Your task to perform on an android device: open sync settings in chrome Image 0: 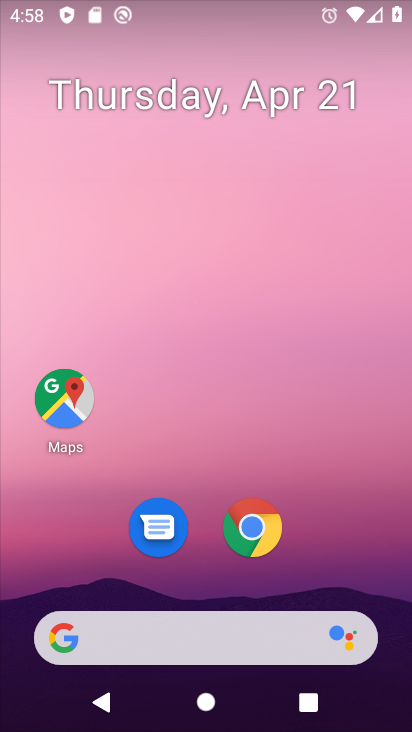
Step 0: click (255, 526)
Your task to perform on an android device: open sync settings in chrome Image 1: 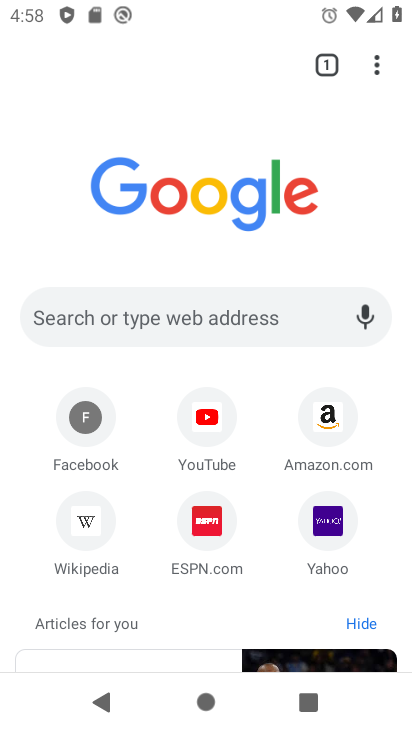
Step 1: click (375, 56)
Your task to perform on an android device: open sync settings in chrome Image 2: 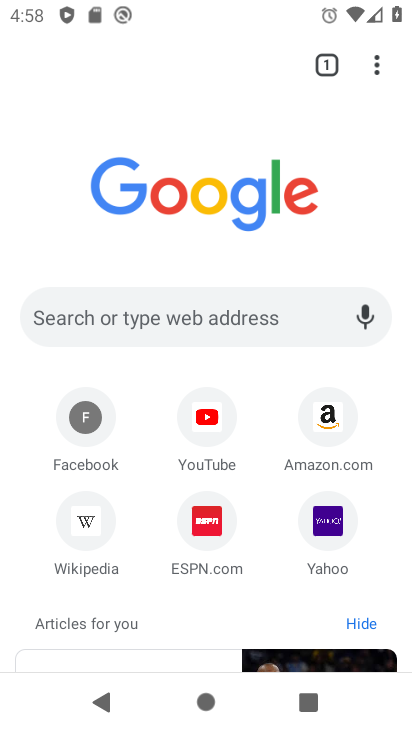
Step 2: click (375, 57)
Your task to perform on an android device: open sync settings in chrome Image 3: 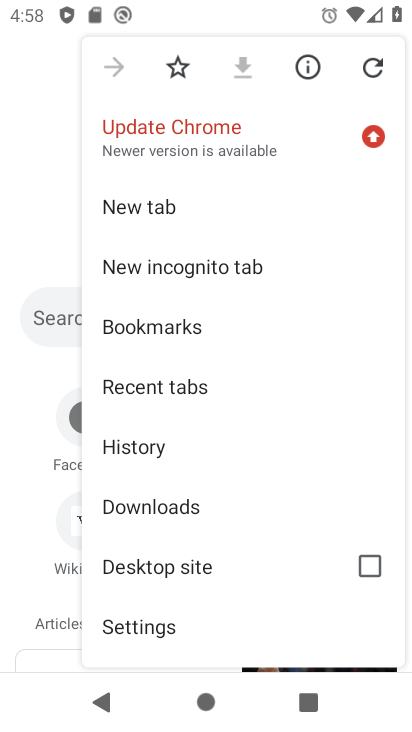
Step 3: click (148, 626)
Your task to perform on an android device: open sync settings in chrome Image 4: 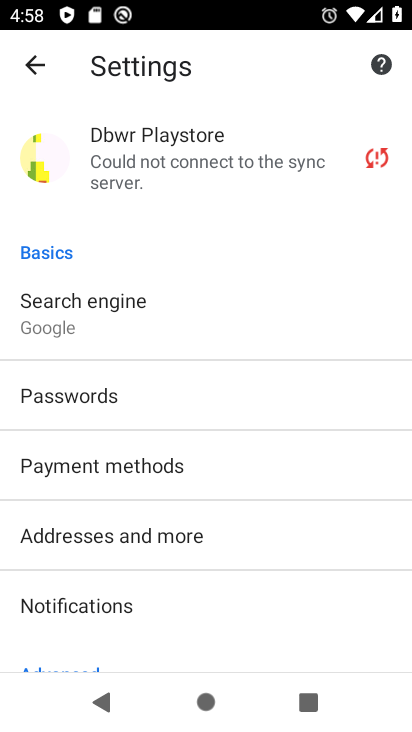
Step 4: drag from (249, 634) to (259, 362)
Your task to perform on an android device: open sync settings in chrome Image 5: 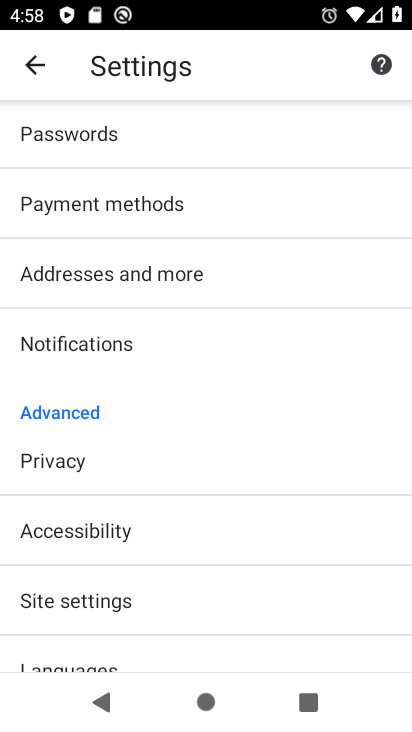
Step 5: drag from (305, 529) to (308, 271)
Your task to perform on an android device: open sync settings in chrome Image 6: 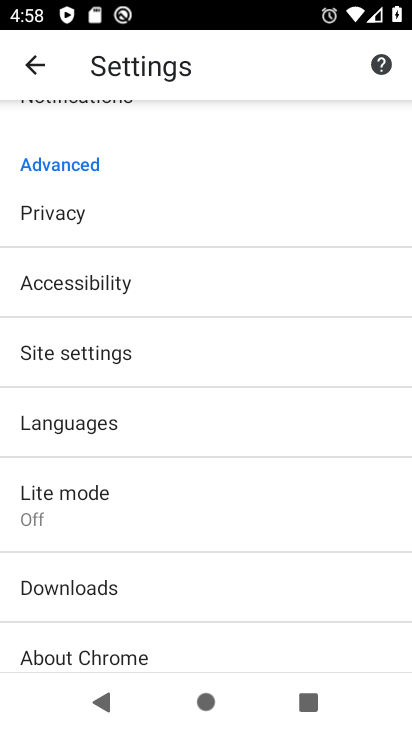
Step 6: click (71, 359)
Your task to perform on an android device: open sync settings in chrome Image 7: 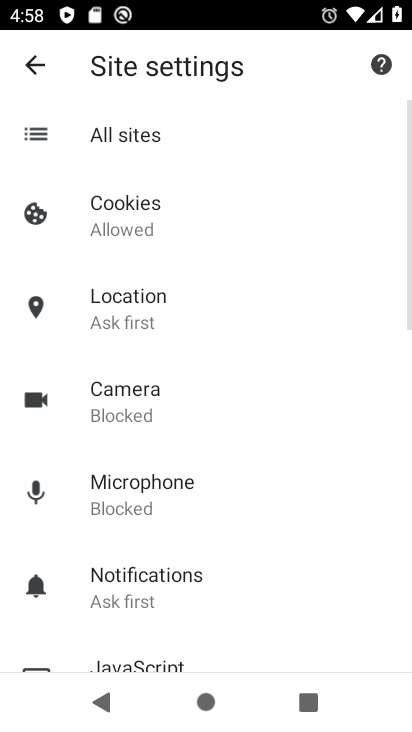
Step 7: drag from (289, 444) to (288, 225)
Your task to perform on an android device: open sync settings in chrome Image 8: 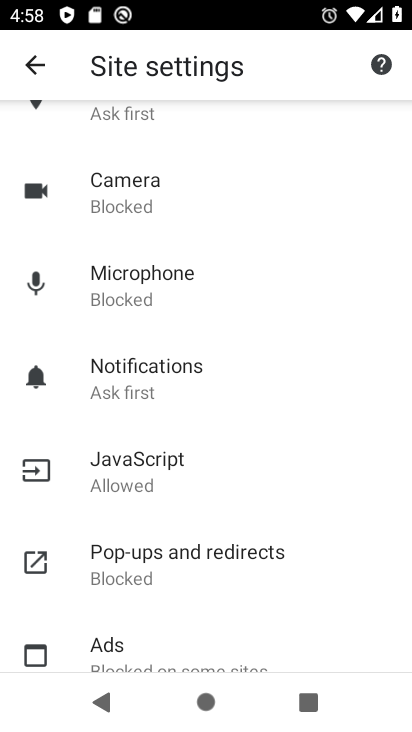
Step 8: drag from (323, 483) to (329, 235)
Your task to perform on an android device: open sync settings in chrome Image 9: 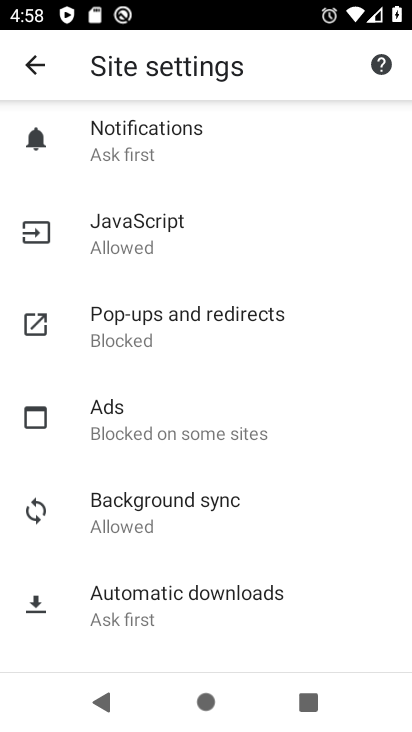
Step 9: click (133, 496)
Your task to perform on an android device: open sync settings in chrome Image 10: 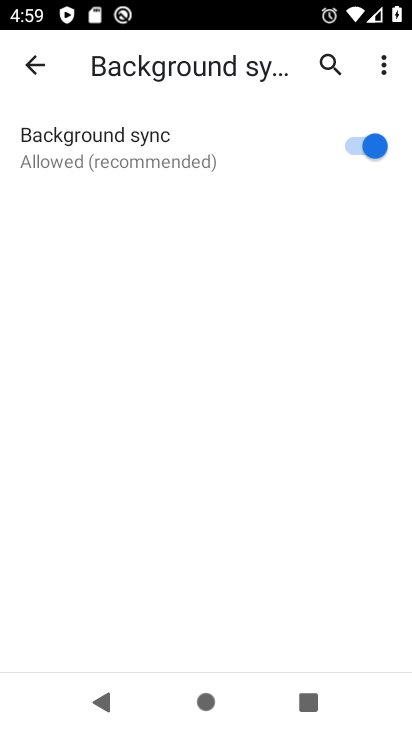
Step 10: task complete